Your task to perform on an android device: find snoozed emails in the gmail app Image 0: 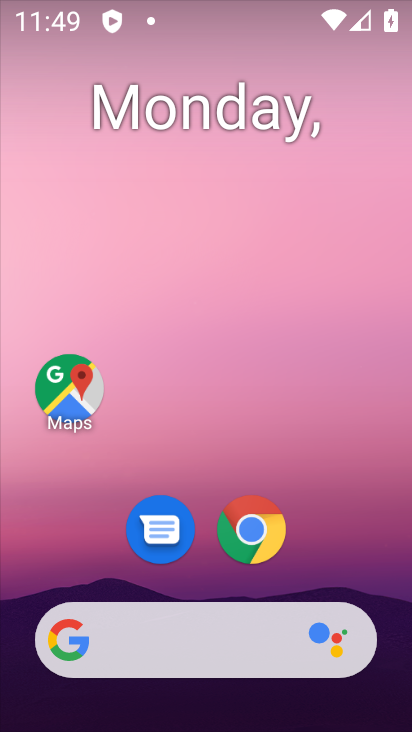
Step 0: drag from (352, 504) to (336, 365)
Your task to perform on an android device: find snoozed emails in the gmail app Image 1: 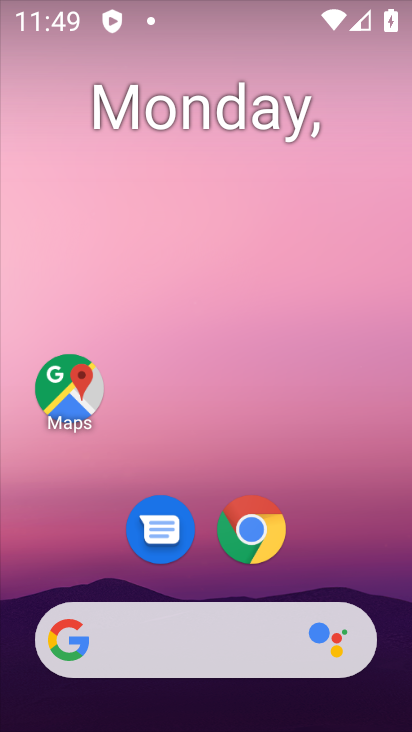
Step 1: drag from (378, 489) to (376, 386)
Your task to perform on an android device: find snoozed emails in the gmail app Image 2: 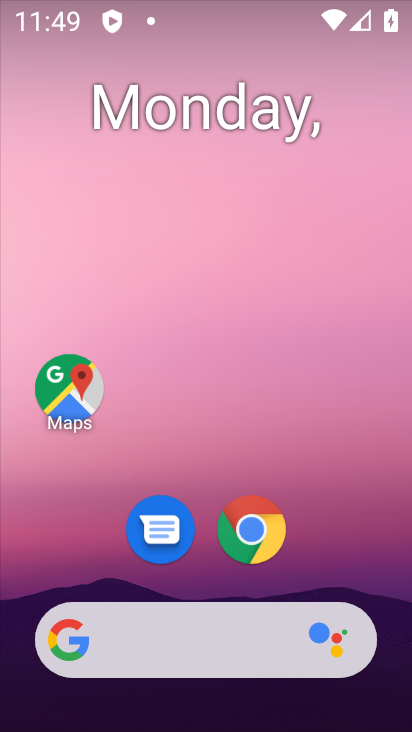
Step 2: drag from (387, 670) to (296, 28)
Your task to perform on an android device: find snoozed emails in the gmail app Image 3: 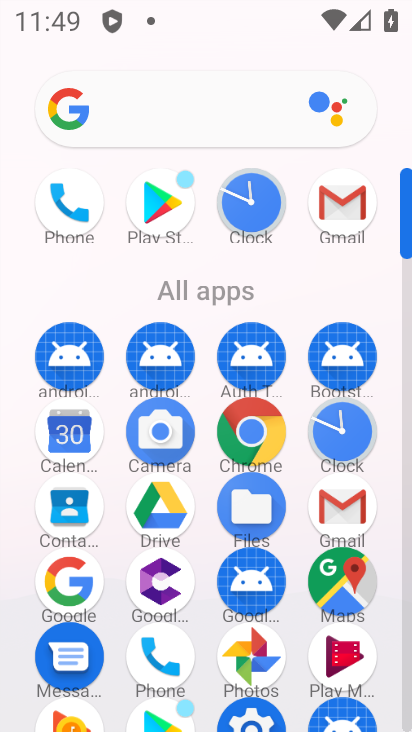
Step 3: click (323, 234)
Your task to perform on an android device: find snoozed emails in the gmail app Image 4: 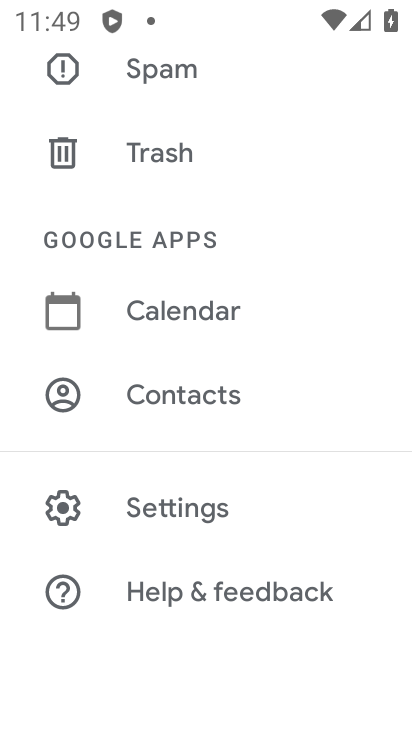
Step 4: drag from (249, 208) to (257, 727)
Your task to perform on an android device: find snoozed emails in the gmail app Image 5: 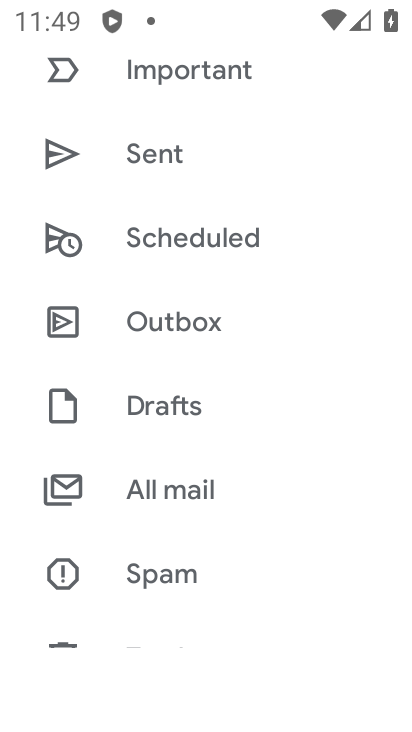
Step 5: drag from (255, 115) to (223, 724)
Your task to perform on an android device: find snoozed emails in the gmail app Image 6: 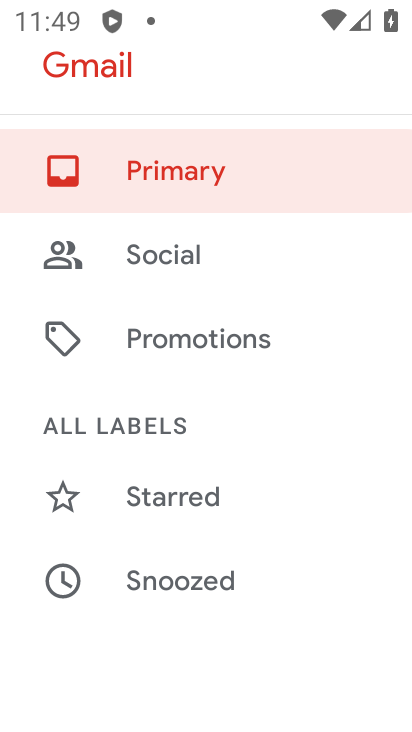
Step 6: click (136, 590)
Your task to perform on an android device: find snoozed emails in the gmail app Image 7: 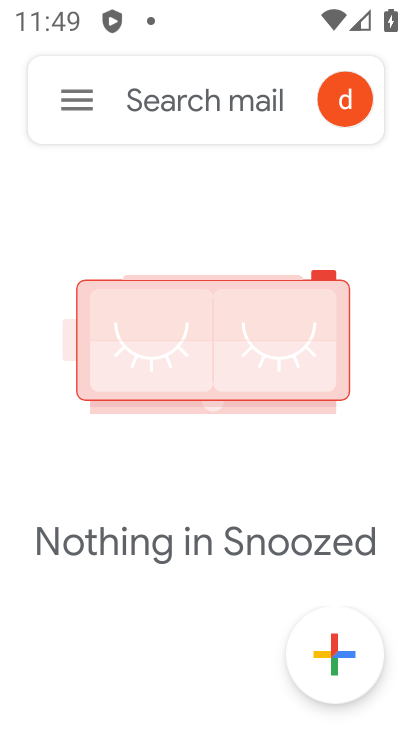
Step 7: task complete